Your task to perform on an android device: set the stopwatch Image 0: 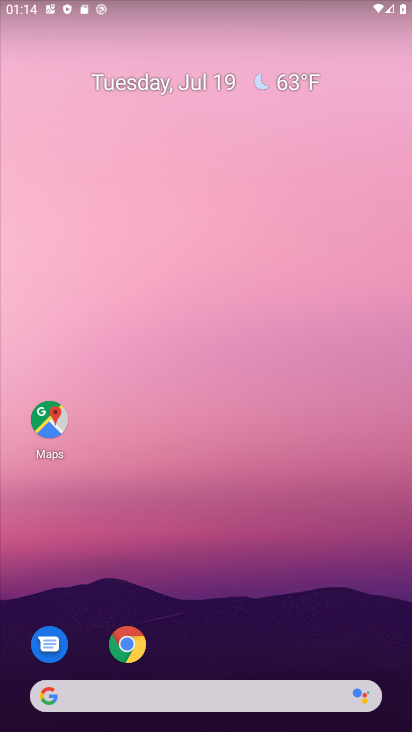
Step 0: click (221, 237)
Your task to perform on an android device: set the stopwatch Image 1: 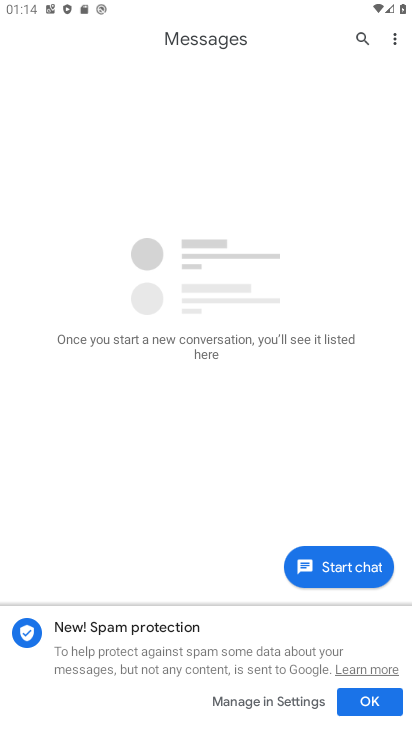
Step 1: press home button
Your task to perform on an android device: set the stopwatch Image 2: 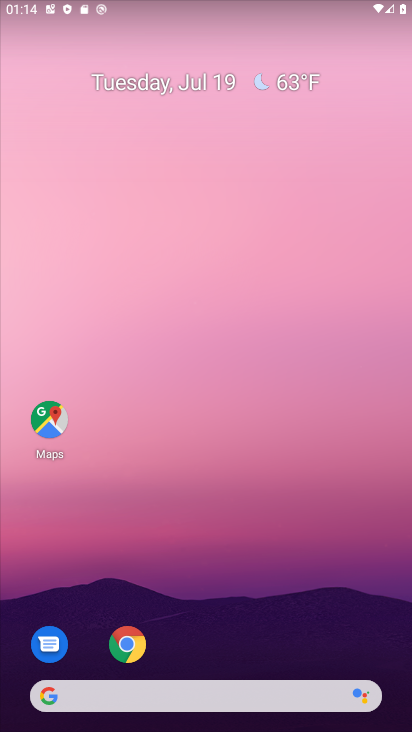
Step 2: drag from (224, 709) to (224, 245)
Your task to perform on an android device: set the stopwatch Image 3: 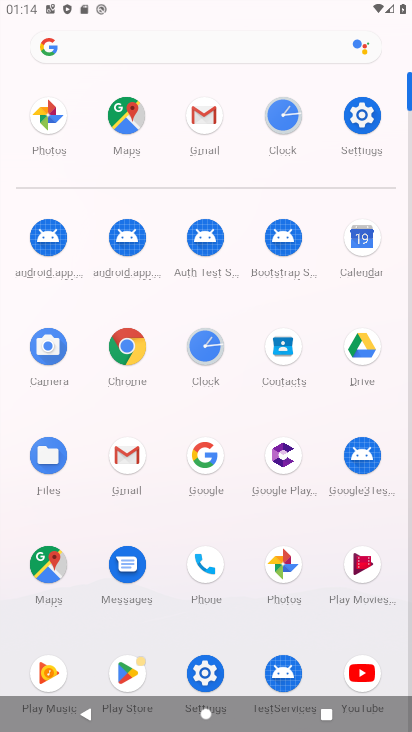
Step 3: click (206, 348)
Your task to perform on an android device: set the stopwatch Image 4: 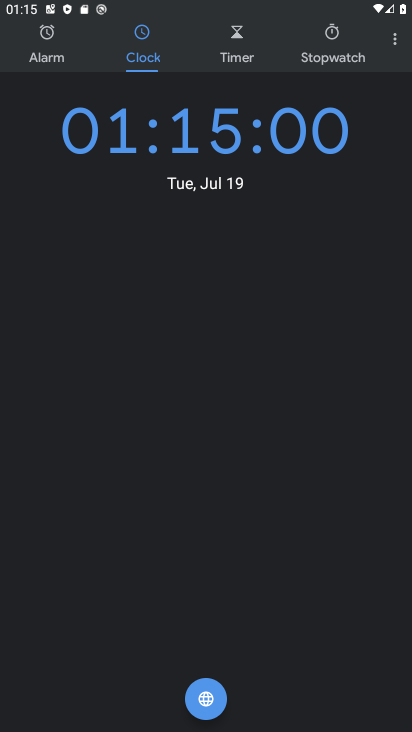
Step 4: click (328, 45)
Your task to perform on an android device: set the stopwatch Image 5: 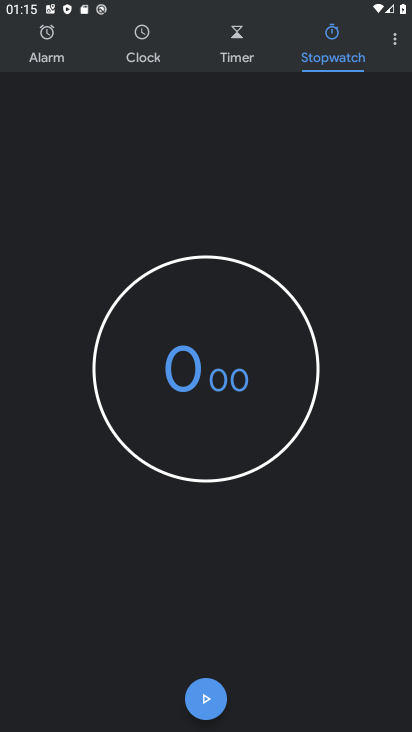
Step 5: click (150, 367)
Your task to perform on an android device: set the stopwatch Image 6: 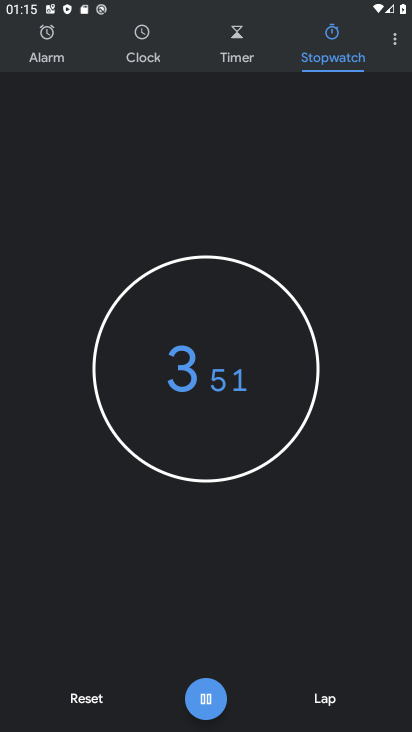
Step 6: type "87886"
Your task to perform on an android device: set the stopwatch Image 7: 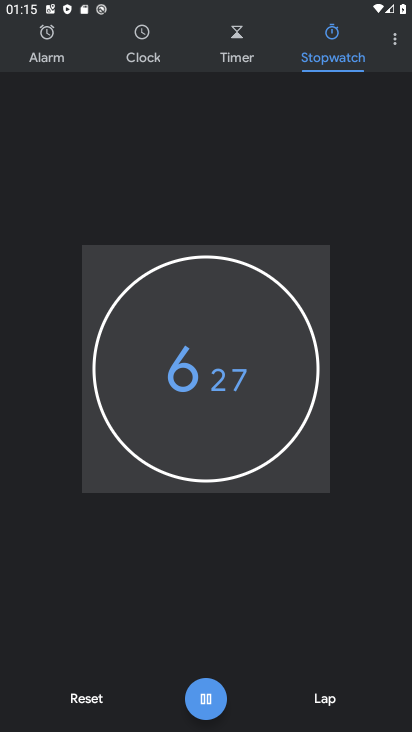
Step 7: task complete